Your task to perform on an android device: turn off location history Image 0: 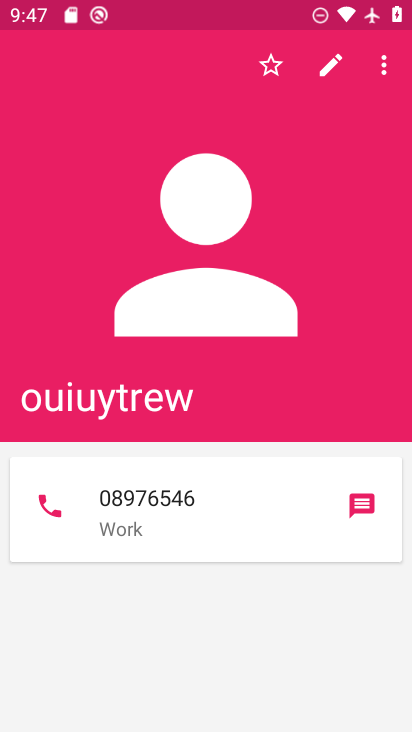
Step 0: press home button
Your task to perform on an android device: turn off location history Image 1: 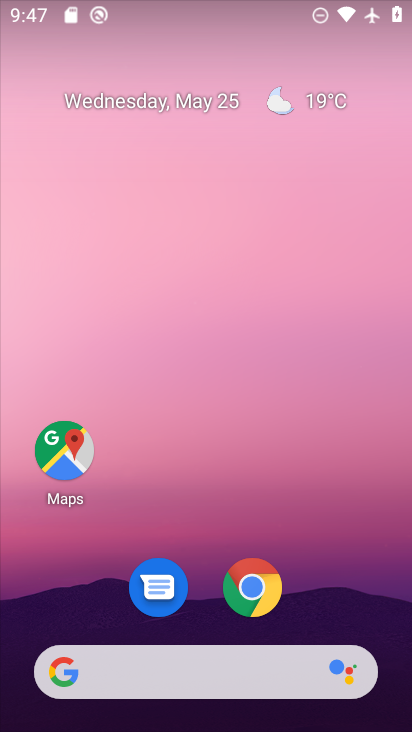
Step 1: click (62, 452)
Your task to perform on an android device: turn off location history Image 2: 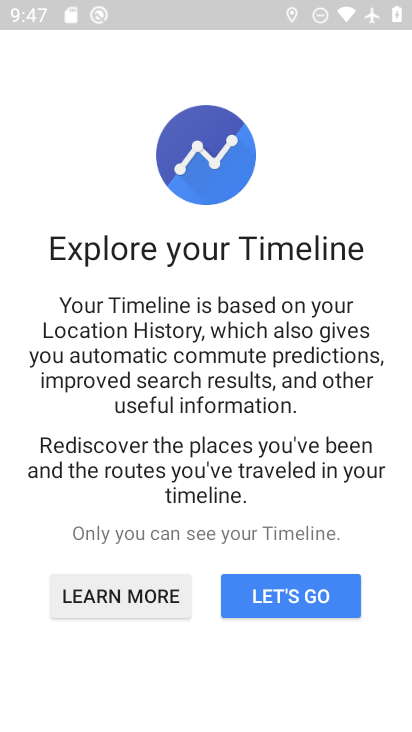
Step 2: press back button
Your task to perform on an android device: turn off location history Image 3: 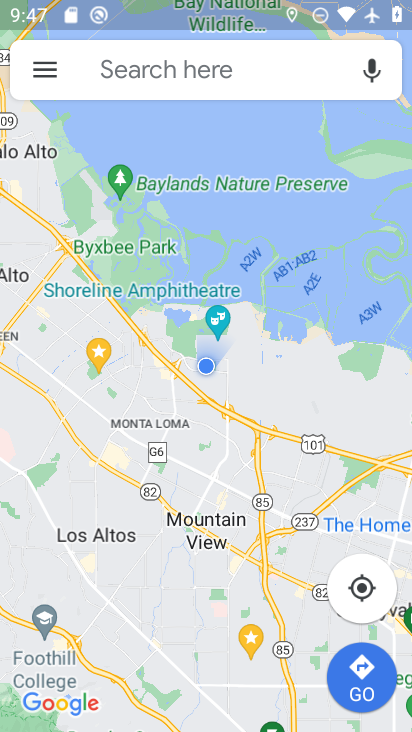
Step 3: click (37, 60)
Your task to perform on an android device: turn off location history Image 4: 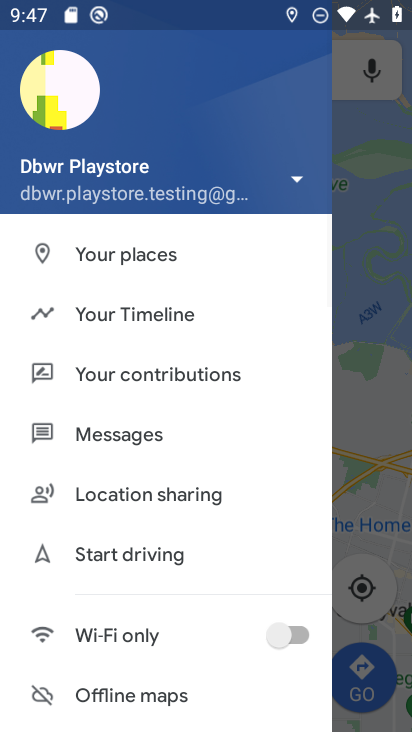
Step 4: drag from (267, 680) to (255, 264)
Your task to perform on an android device: turn off location history Image 5: 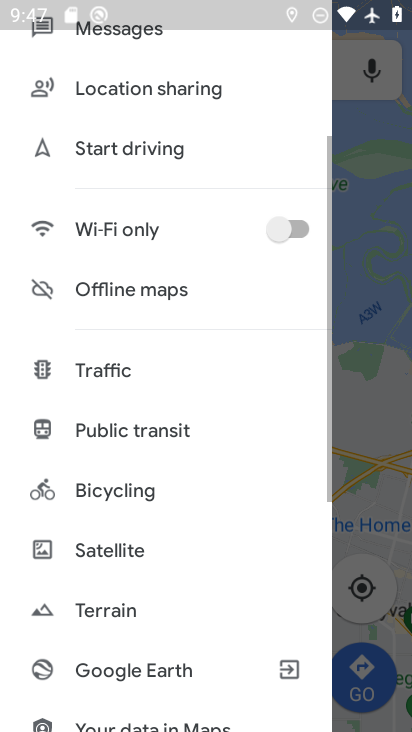
Step 5: drag from (228, 655) to (206, 376)
Your task to perform on an android device: turn off location history Image 6: 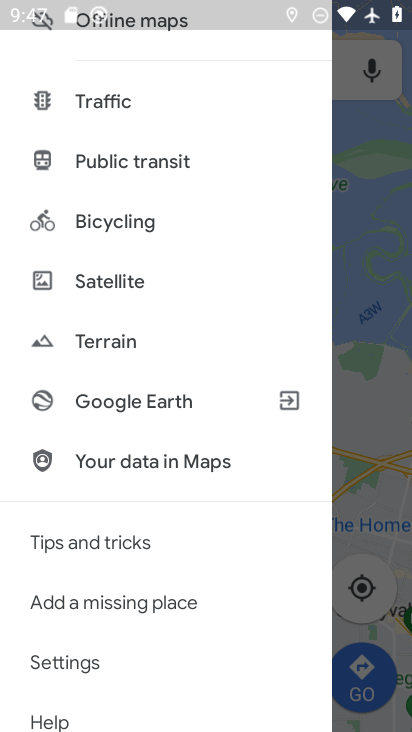
Step 6: click (66, 658)
Your task to perform on an android device: turn off location history Image 7: 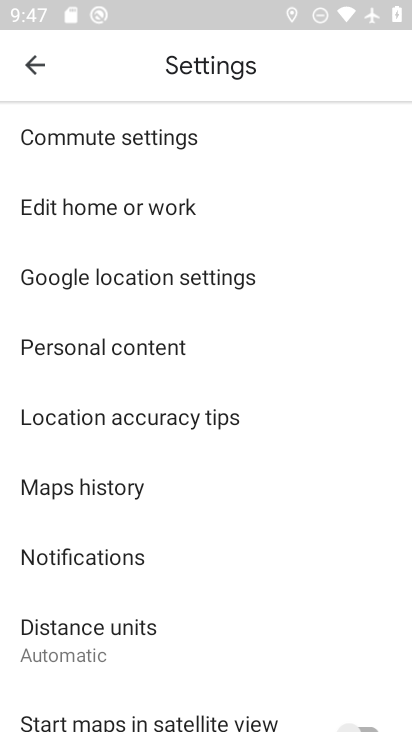
Step 7: click (108, 344)
Your task to perform on an android device: turn off location history Image 8: 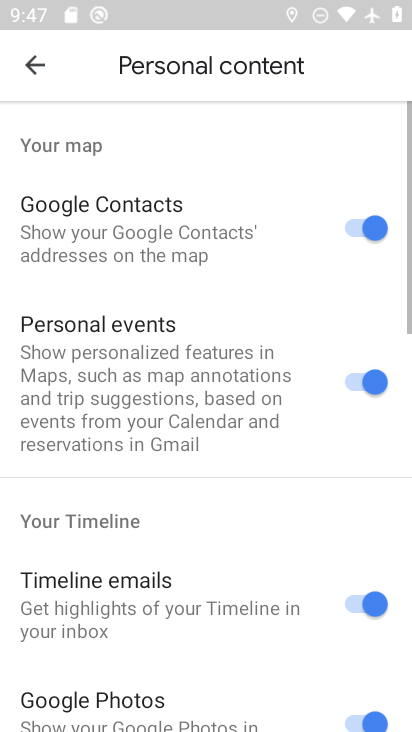
Step 8: drag from (240, 663) to (280, 233)
Your task to perform on an android device: turn off location history Image 9: 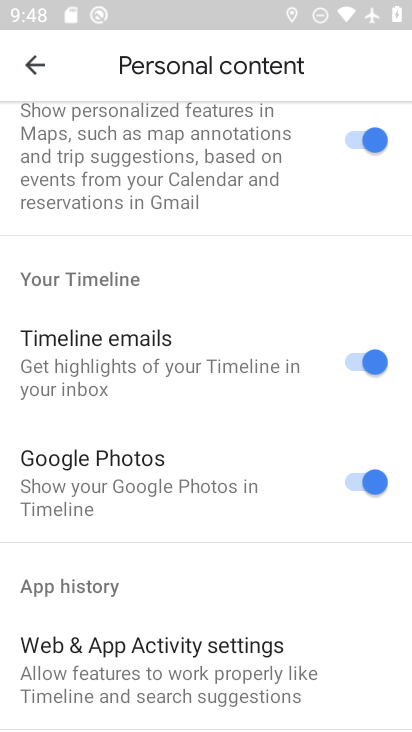
Step 9: drag from (273, 665) to (271, 195)
Your task to perform on an android device: turn off location history Image 10: 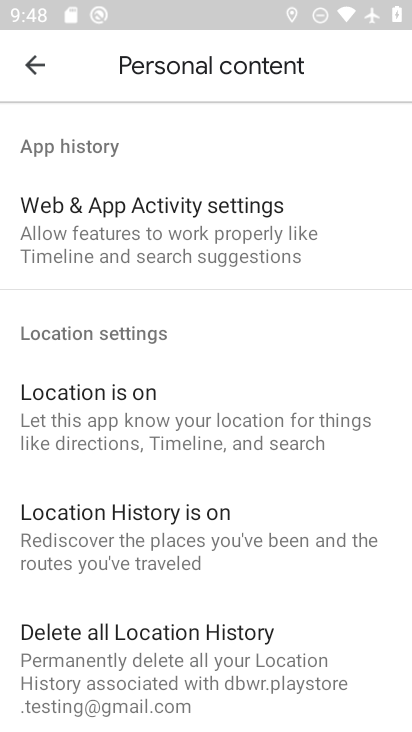
Step 10: click (88, 538)
Your task to perform on an android device: turn off location history Image 11: 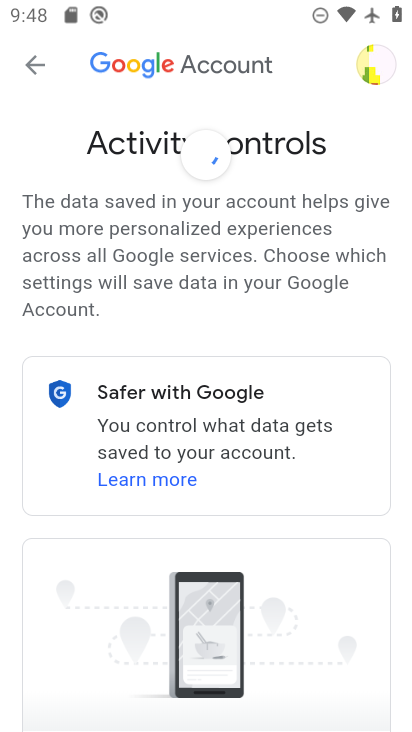
Step 11: task complete